Your task to perform on an android device: When is my next appointment? Image 0: 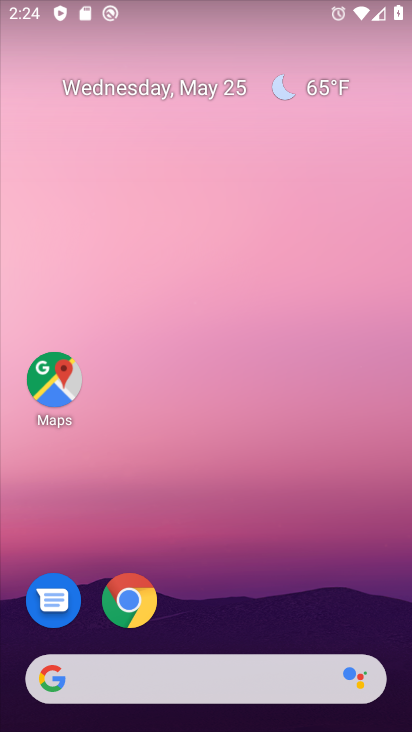
Step 0: drag from (323, 542) to (306, 144)
Your task to perform on an android device: When is my next appointment? Image 1: 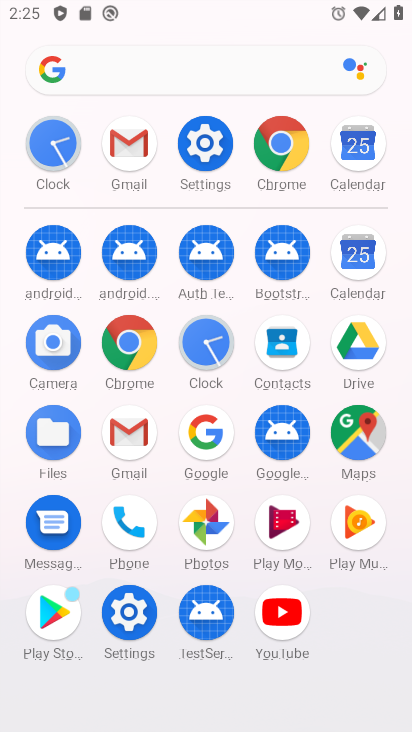
Step 1: click (357, 254)
Your task to perform on an android device: When is my next appointment? Image 2: 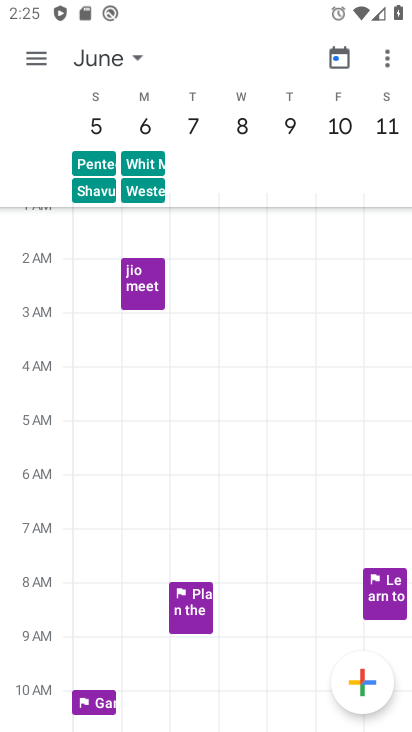
Step 2: click (97, 59)
Your task to perform on an android device: When is my next appointment? Image 3: 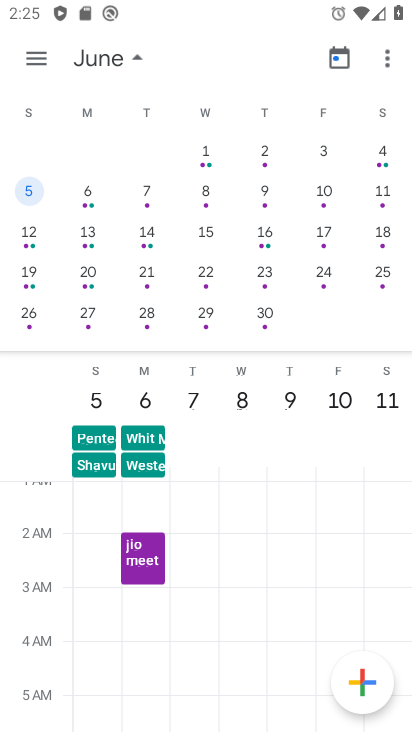
Step 3: drag from (79, 281) to (408, 254)
Your task to perform on an android device: When is my next appointment? Image 4: 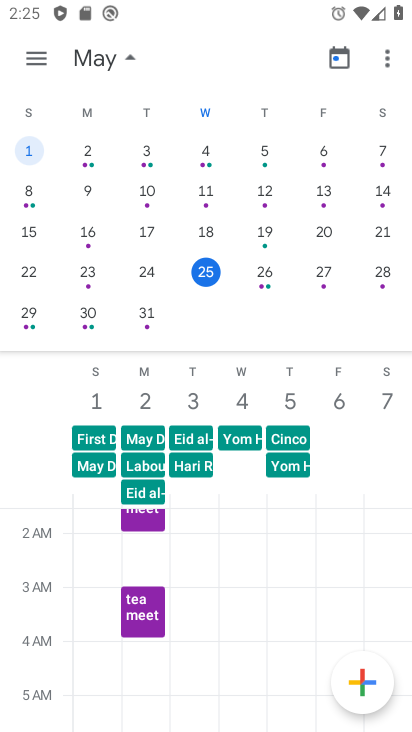
Step 4: click (197, 271)
Your task to perform on an android device: When is my next appointment? Image 5: 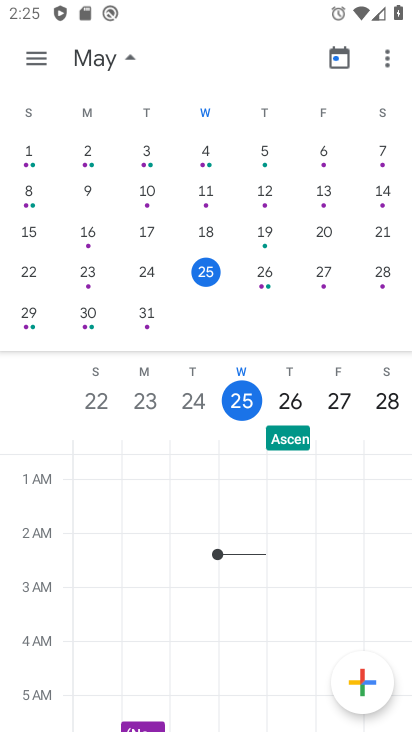
Step 5: task complete